Your task to perform on an android device: Go to CNN.com Image 0: 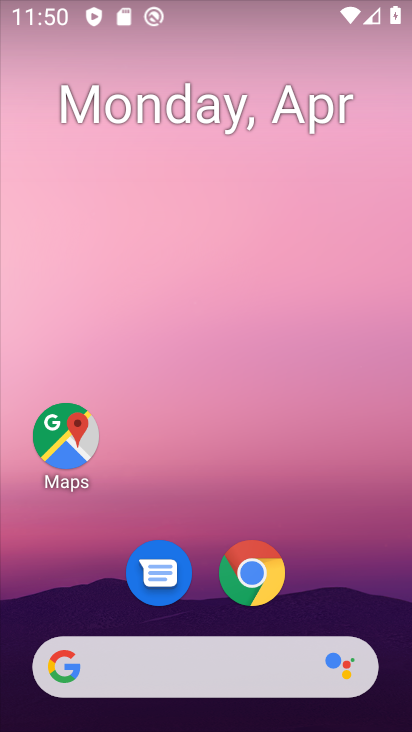
Step 0: click (232, 573)
Your task to perform on an android device: Go to CNN.com Image 1: 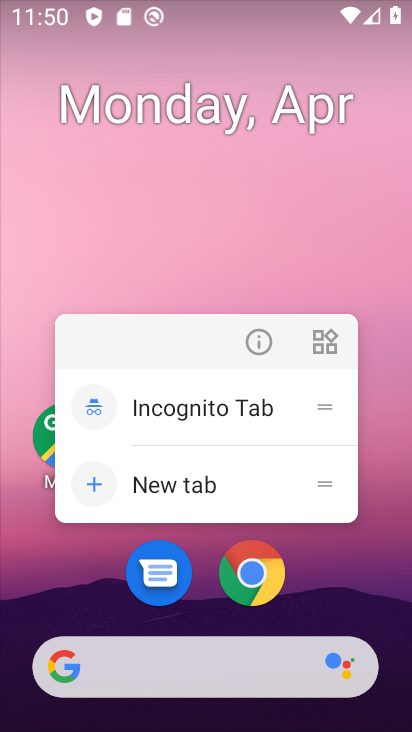
Step 1: click (241, 565)
Your task to perform on an android device: Go to CNN.com Image 2: 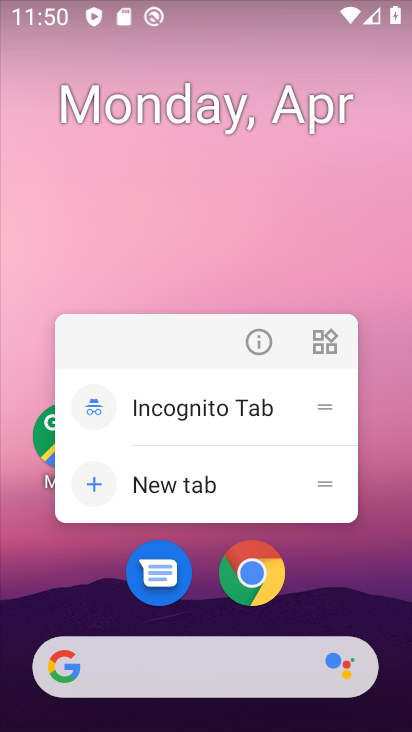
Step 2: click (244, 562)
Your task to perform on an android device: Go to CNN.com Image 3: 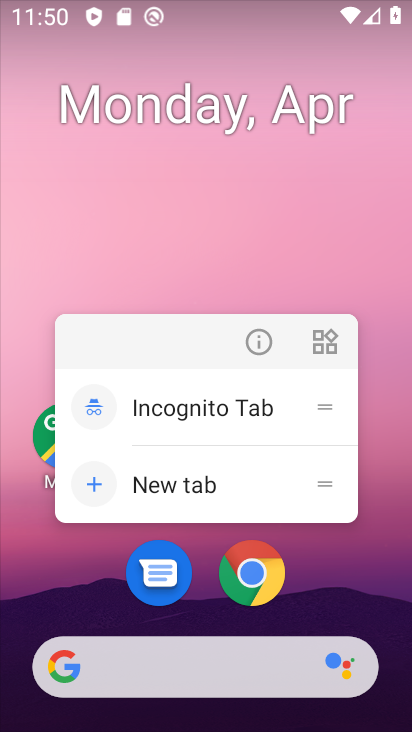
Step 3: click (244, 550)
Your task to perform on an android device: Go to CNN.com Image 4: 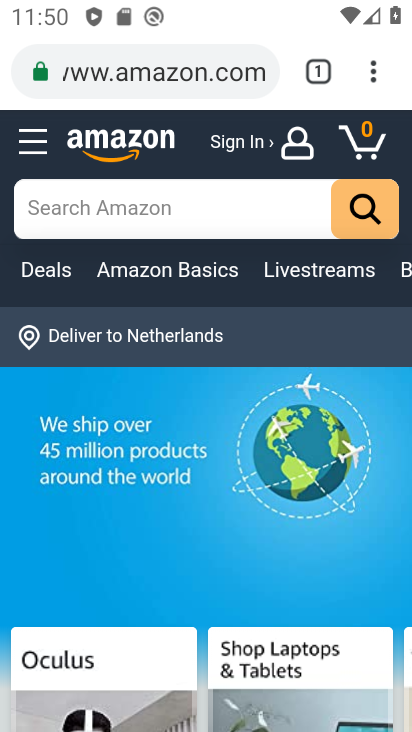
Step 4: click (321, 73)
Your task to perform on an android device: Go to CNN.com Image 5: 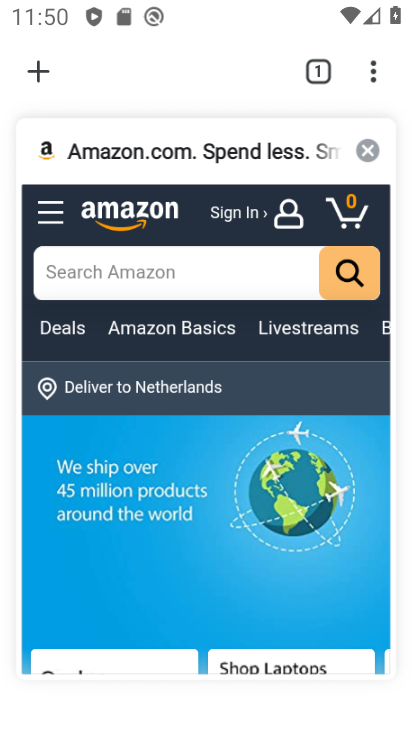
Step 5: click (38, 72)
Your task to perform on an android device: Go to CNN.com Image 6: 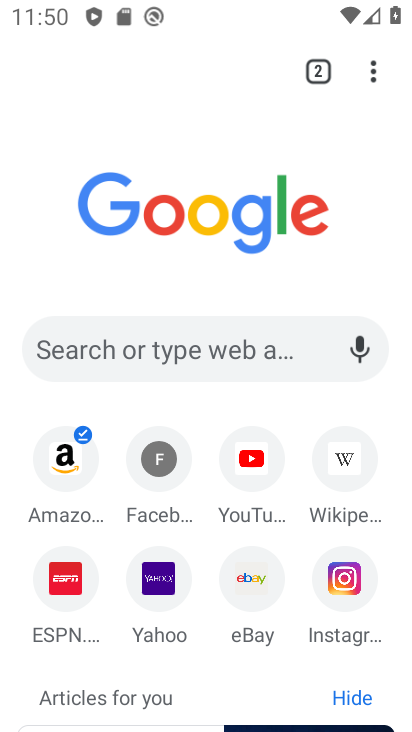
Step 6: click (170, 342)
Your task to perform on an android device: Go to CNN.com Image 7: 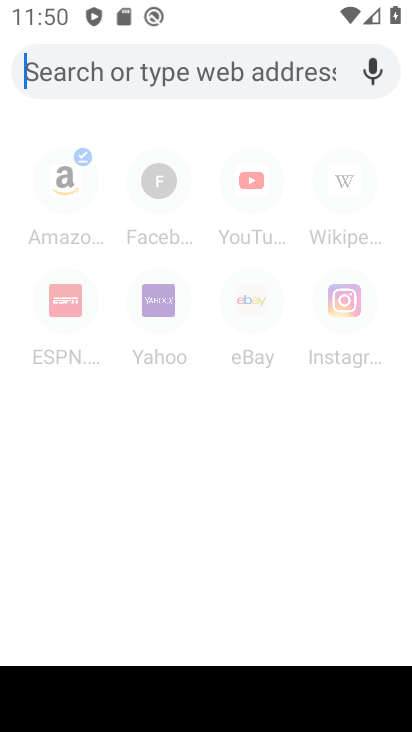
Step 7: type "cnn.com"
Your task to perform on an android device: Go to CNN.com Image 8: 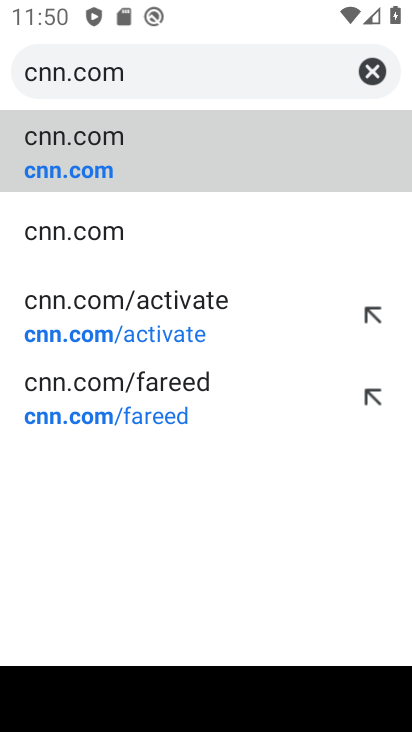
Step 8: click (126, 189)
Your task to perform on an android device: Go to CNN.com Image 9: 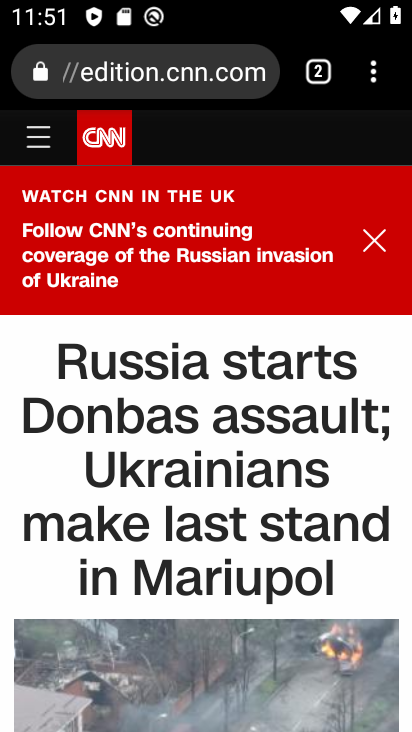
Step 9: task complete